Your task to perform on an android device: Open Google Maps and go to "Timeline" Image 0: 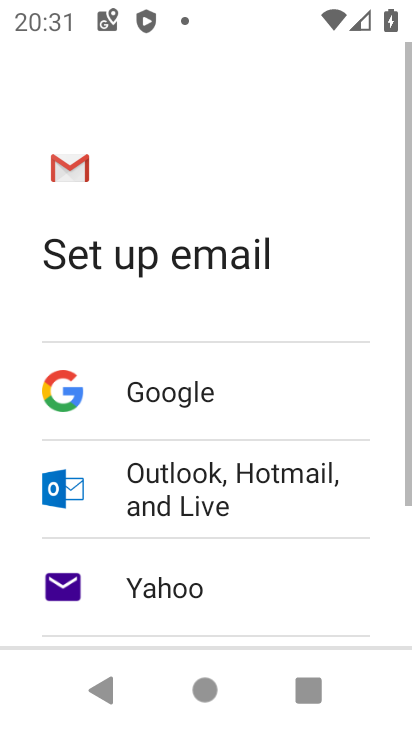
Step 0: press home button
Your task to perform on an android device: Open Google Maps and go to "Timeline" Image 1: 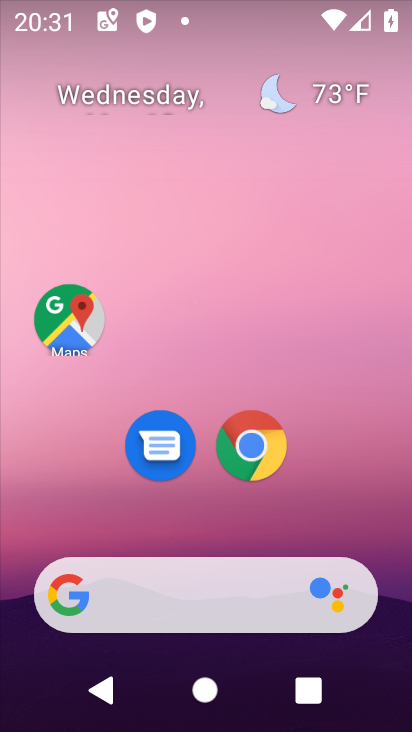
Step 1: drag from (286, 494) to (255, 158)
Your task to perform on an android device: Open Google Maps and go to "Timeline" Image 2: 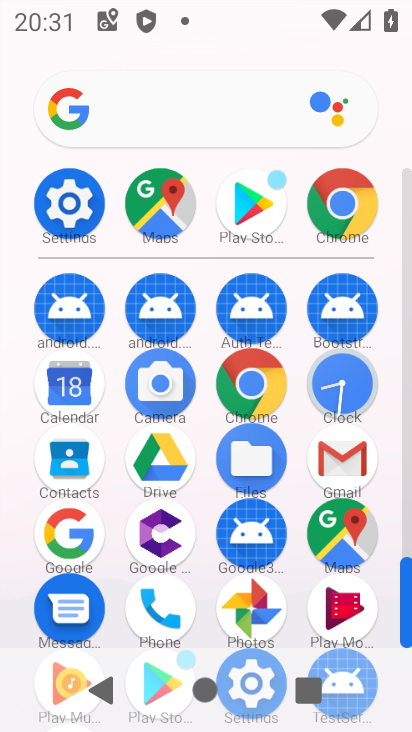
Step 2: click (160, 208)
Your task to perform on an android device: Open Google Maps and go to "Timeline" Image 3: 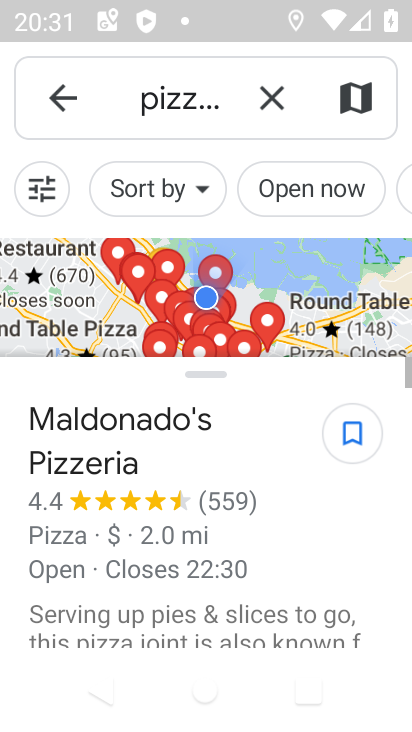
Step 3: click (260, 101)
Your task to perform on an android device: Open Google Maps and go to "Timeline" Image 4: 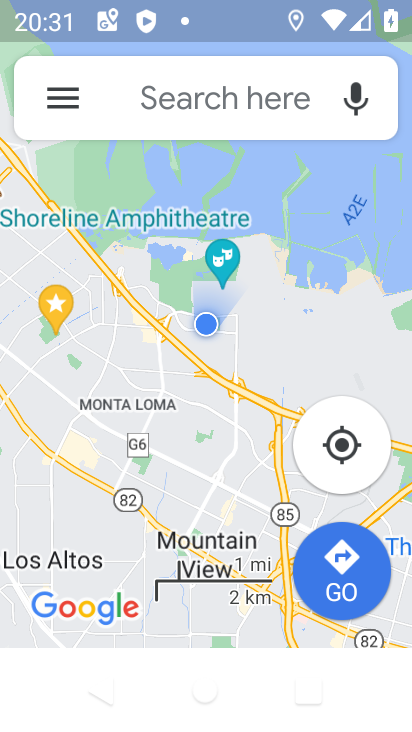
Step 4: click (58, 88)
Your task to perform on an android device: Open Google Maps and go to "Timeline" Image 5: 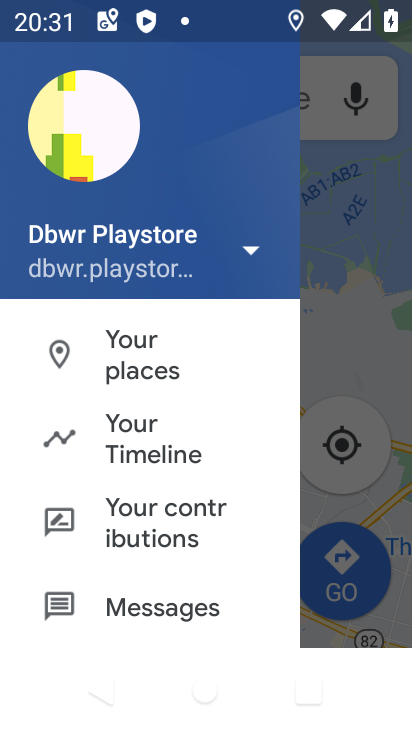
Step 5: click (134, 453)
Your task to perform on an android device: Open Google Maps and go to "Timeline" Image 6: 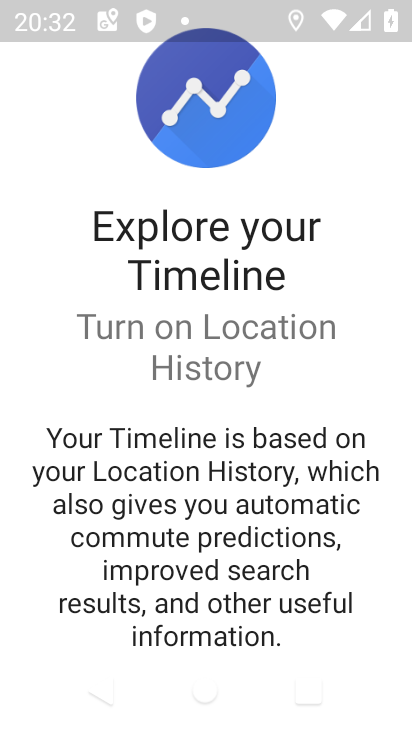
Step 6: drag from (261, 543) to (246, 276)
Your task to perform on an android device: Open Google Maps and go to "Timeline" Image 7: 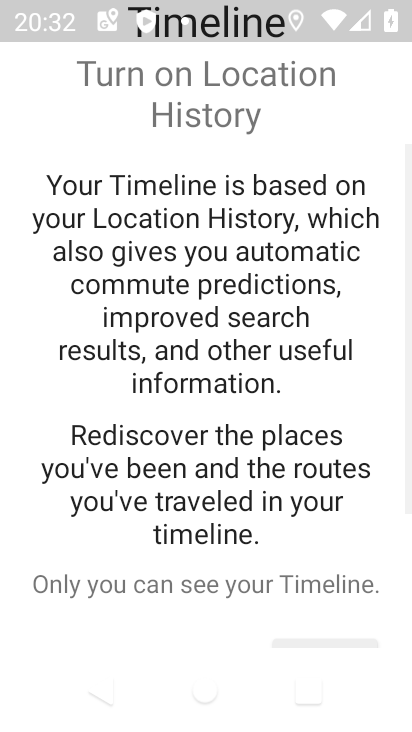
Step 7: drag from (232, 557) to (285, 182)
Your task to perform on an android device: Open Google Maps and go to "Timeline" Image 8: 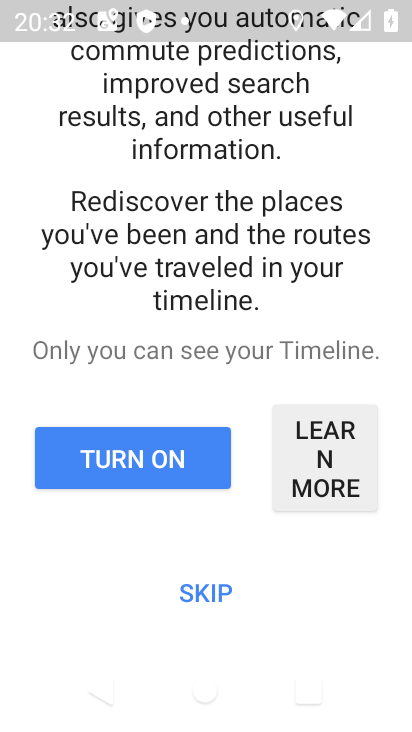
Step 8: click (203, 580)
Your task to perform on an android device: Open Google Maps and go to "Timeline" Image 9: 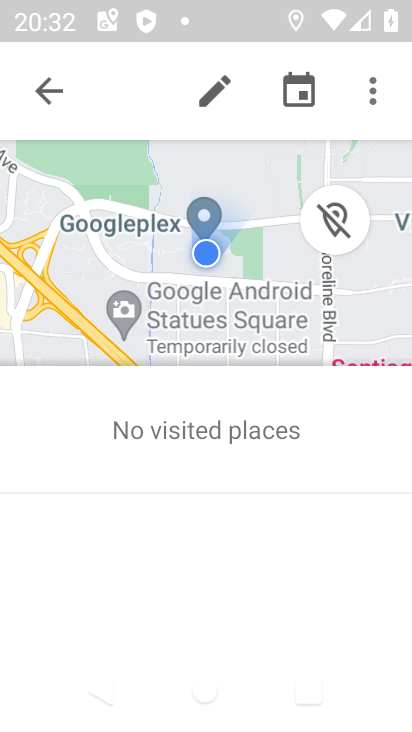
Step 9: task complete